Your task to perform on an android device: Go to accessibility settings Image 0: 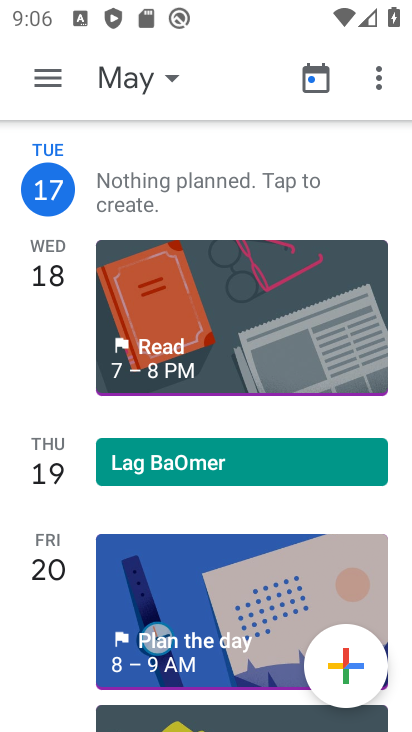
Step 0: press home button
Your task to perform on an android device: Go to accessibility settings Image 1: 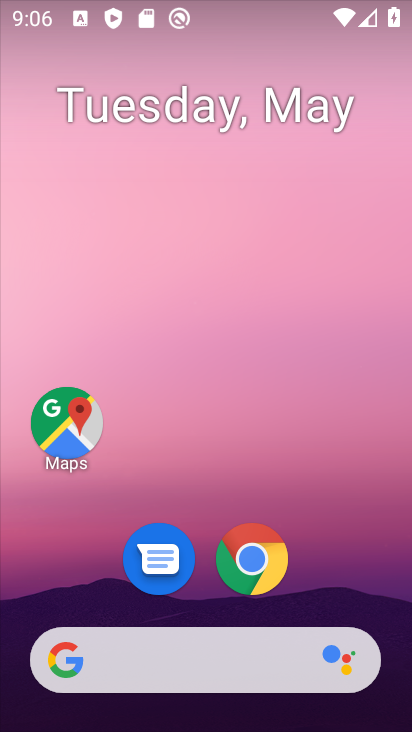
Step 1: drag from (237, 665) to (199, 206)
Your task to perform on an android device: Go to accessibility settings Image 2: 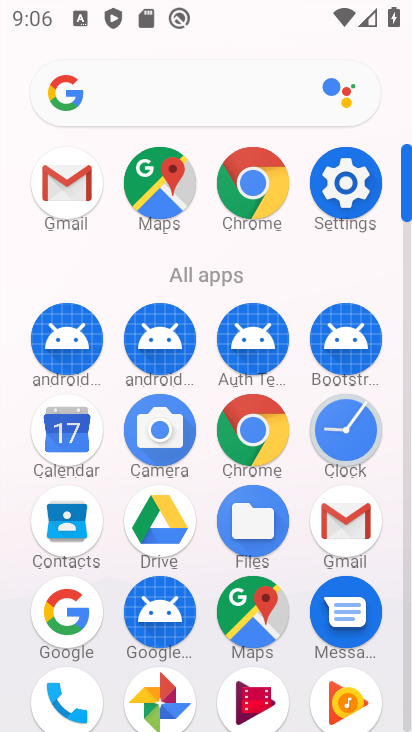
Step 2: click (331, 197)
Your task to perform on an android device: Go to accessibility settings Image 3: 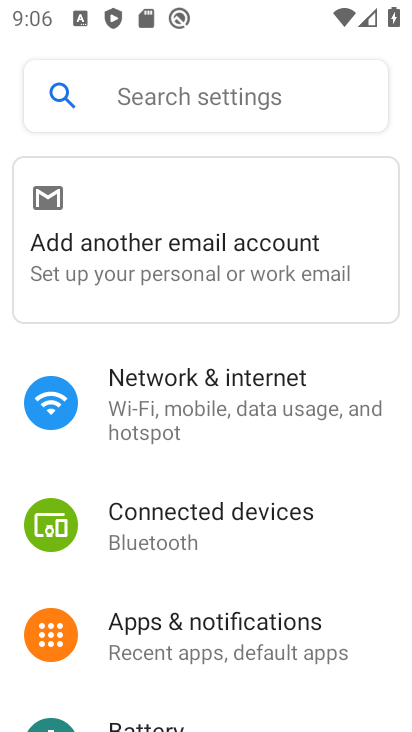
Step 3: drag from (207, 680) to (164, 15)
Your task to perform on an android device: Go to accessibility settings Image 4: 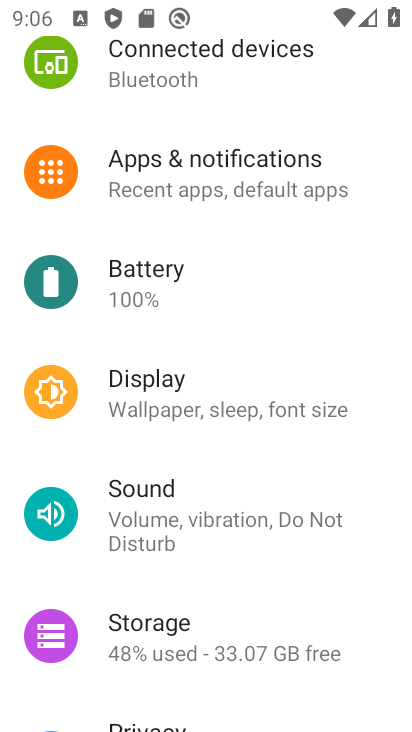
Step 4: drag from (157, 614) to (96, 21)
Your task to perform on an android device: Go to accessibility settings Image 5: 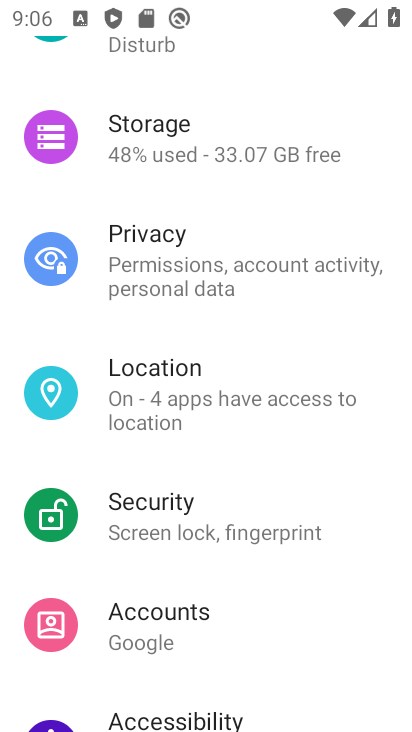
Step 5: click (159, 710)
Your task to perform on an android device: Go to accessibility settings Image 6: 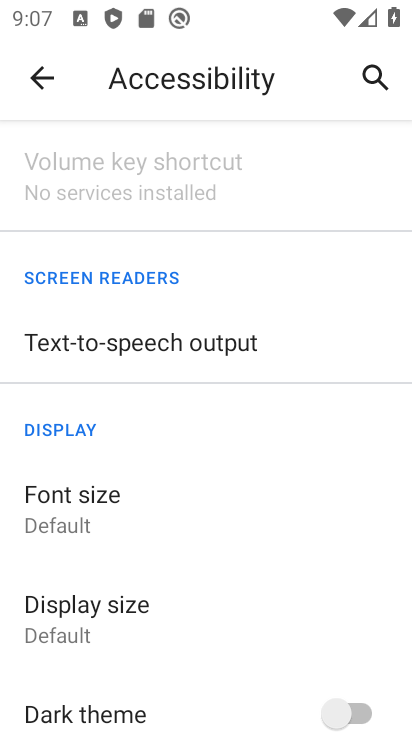
Step 6: task complete